Your task to perform on an android device: turn off location Image 0: 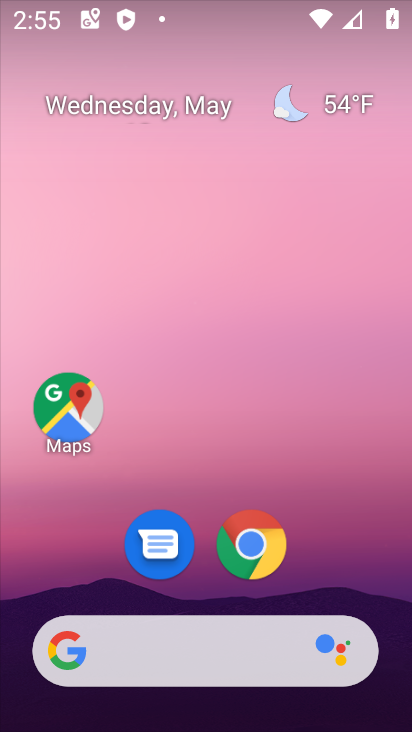
Step 0: click (266, 548)
Your task to perform on an android device: turn off location Image 1: 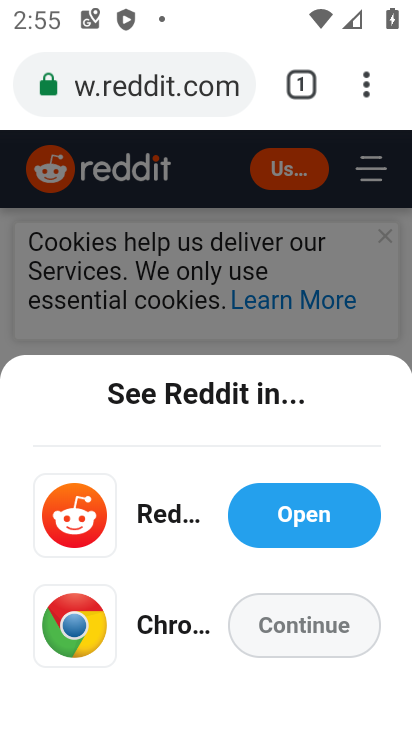
Step 1: press home button
Your task to perform on an android device: turn off location Image 2: 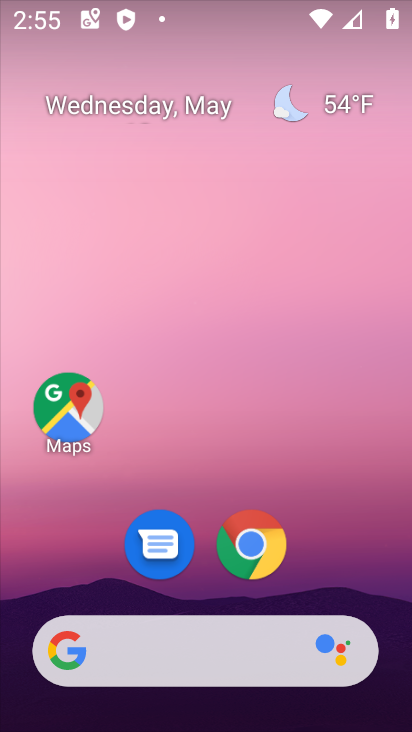
Step 2: drag from (333, 589) to (208, 61)
Your task to perform on an android device: turn off location Image 3: 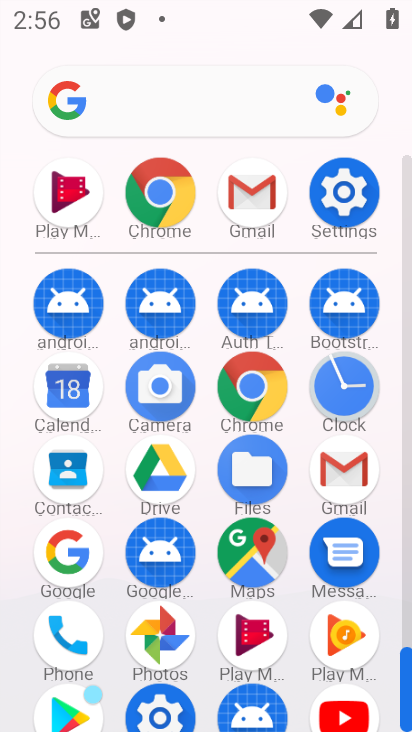
Step 3: click (327, 213)
Your task to perform on an android device: turn off location Image 4: 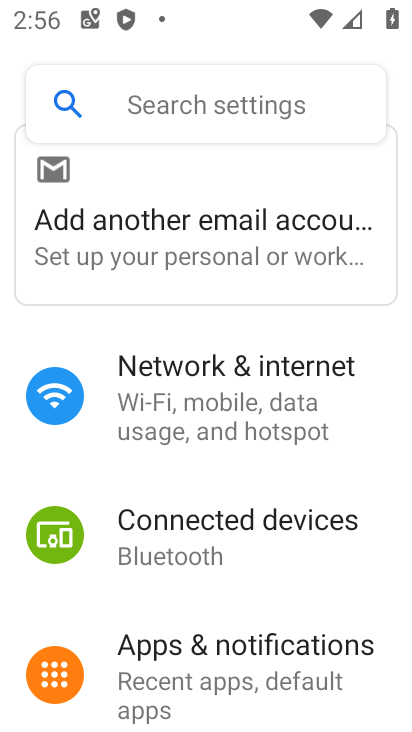
Step 4: drag from (178, 657) to (170, 155)
Your task to perform on an android device: turn off location Image 5: 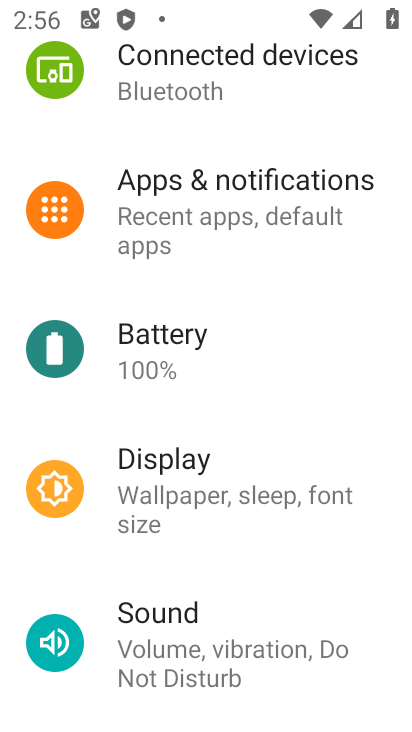
Step 5: drag from (244, 587) to (263, 208)
Your task to perform on an android device: turn off location Image 6: 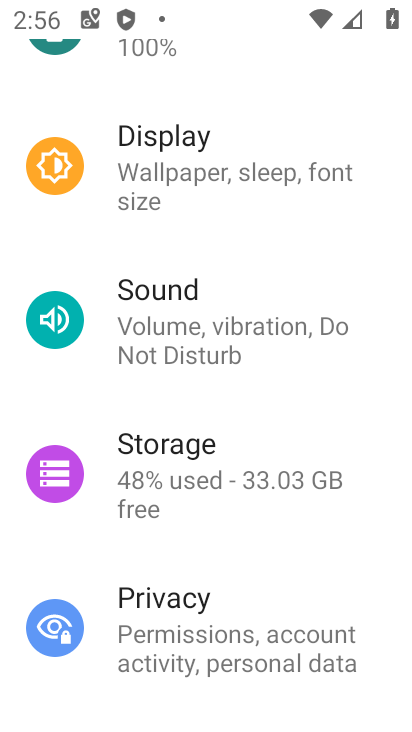
Step 6: drag from (202, 564) to (214, 521)
Your task to perform on an android device: turn off location Image 7: 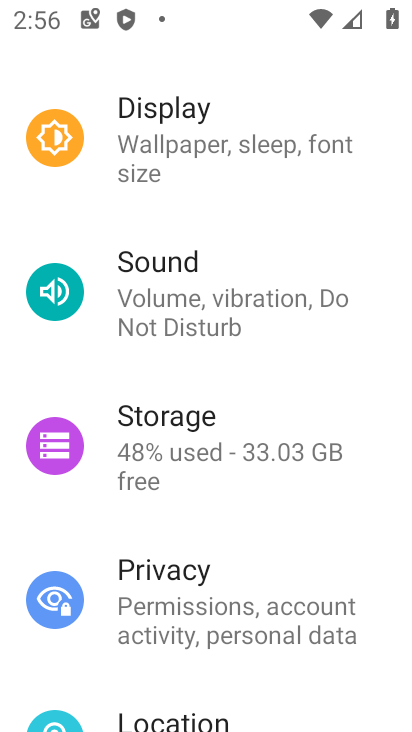
Step 7: drag from (215, 588) to (219, 544)
Your task to perform on an android device: turn off location Image 8: 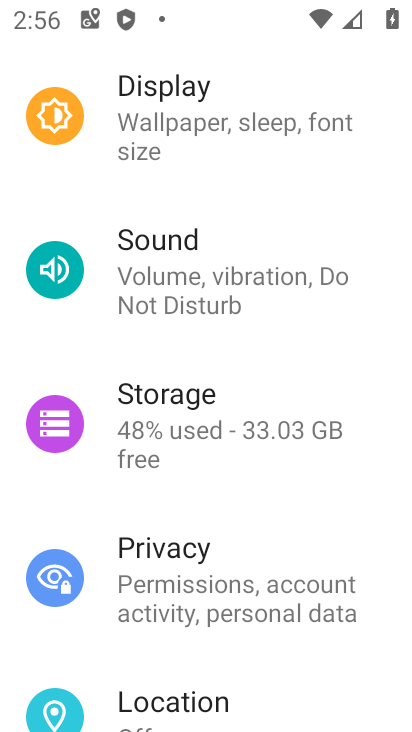
Step 8: drag from (216, 675) to (227, 634)
Your task to perform on an android device: turn off location Image 9: 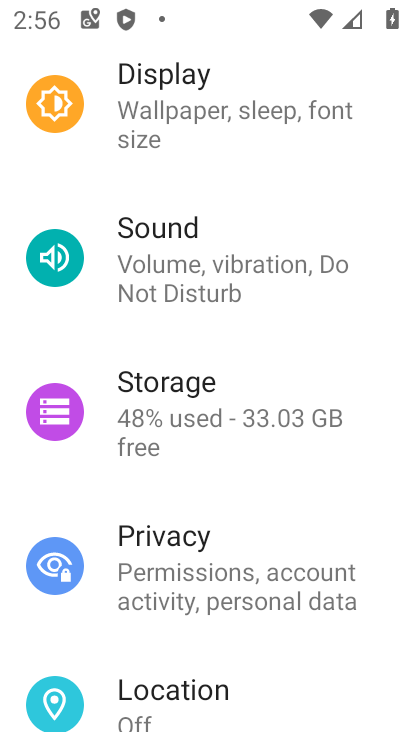
Step 9: click (224, 692)
Your task to perform on an android device: turn off location Image 10: 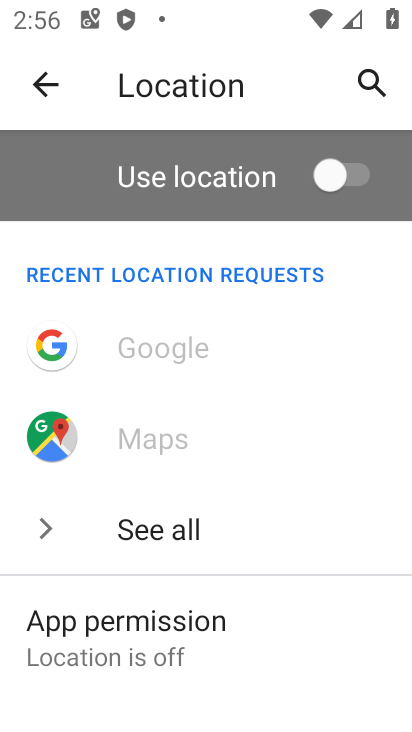
Step 10: task complete